Your task to perform on an android device: Go to internet settings Image 0: 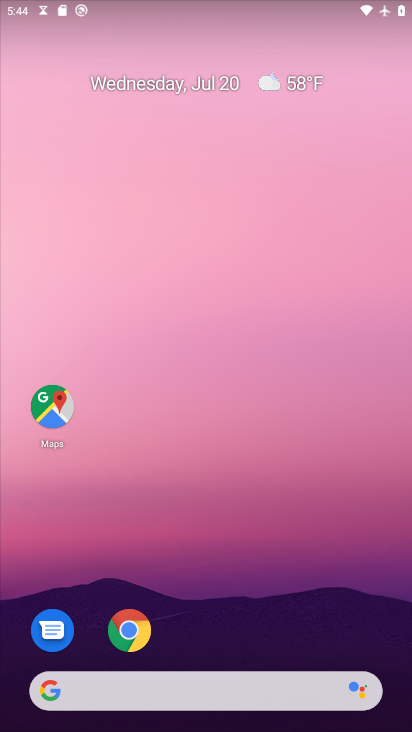
Step 0: press home button
Your task to perform on an android device: Go to internet settings Image 1: 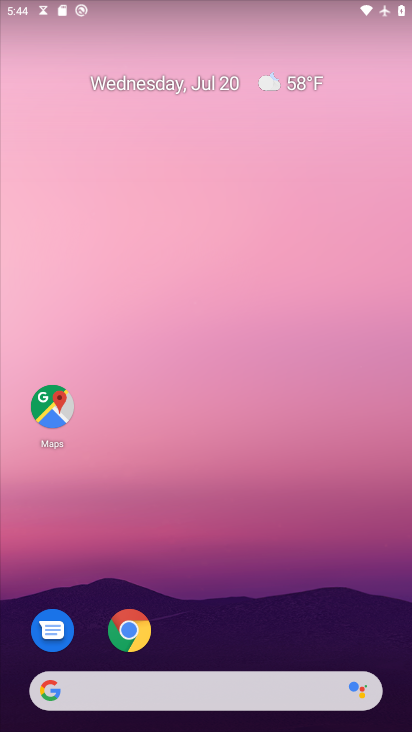
Step 1: click (348, 440)
Your task to perform on an android device: Go to internet settings Image 2: 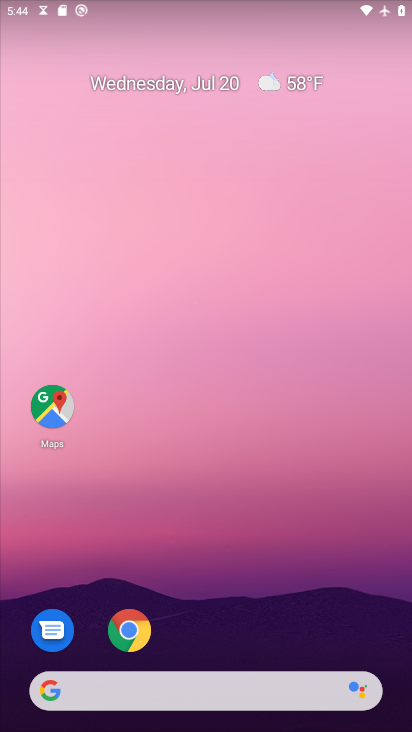
Step 2: drag from (230, 17) to (362, 728)
Your task to perform on an android device: Go to internet settings Image 3: 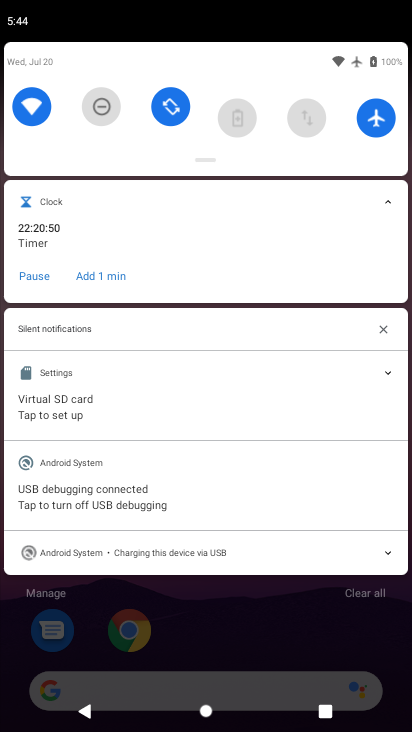
Step 3: drag from (186, 645) to (213, 4)
Your task to perform on an android device: Go to internet settings Image 4: 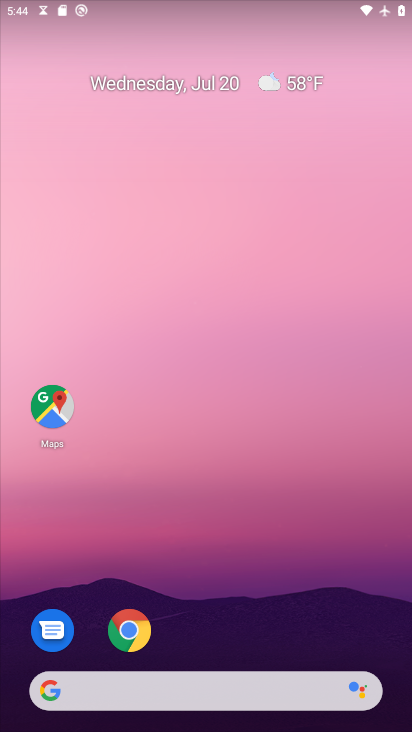
Step 4: drag from (234, 657) to (149, 0)
Your task to perform on an android device: Go to internet settings Image 5: 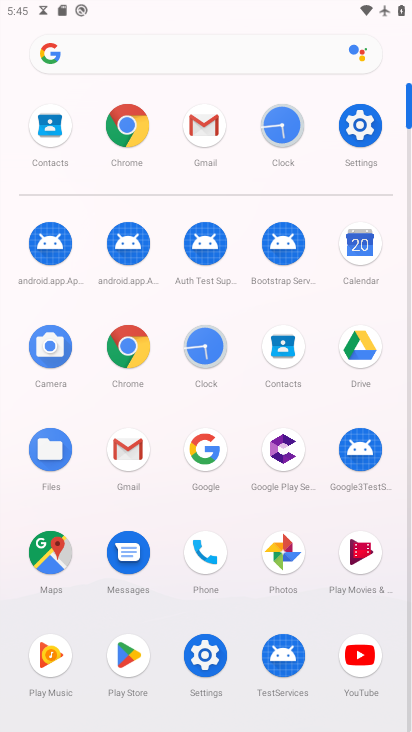
Step 5: click (363, 127)
Your task to perform on an android device: Go to internet settings Image 6: 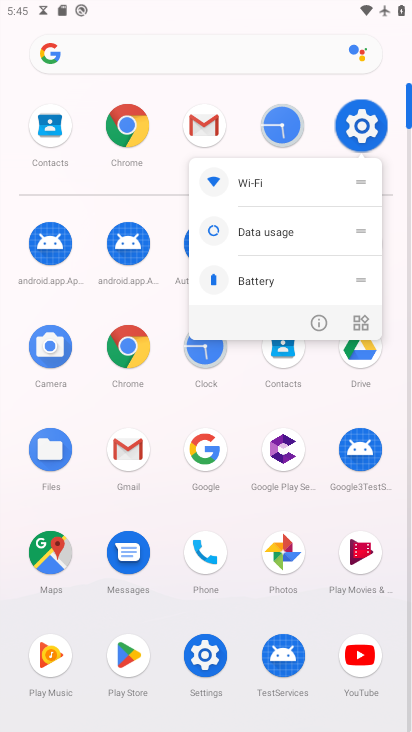
Step 6: click (360, 129)
Your task to perform on an android device: Go to internet settings Image 7: 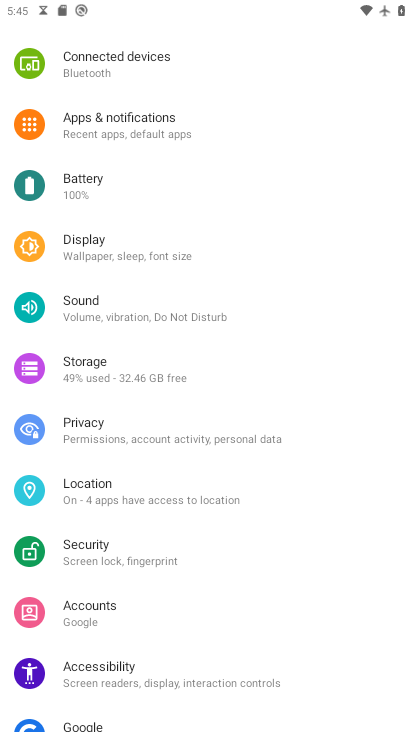
Step 7: drag from (269, 101) to (405, 614)
Your task to perform on an android device: Go to internet settings Image 8: 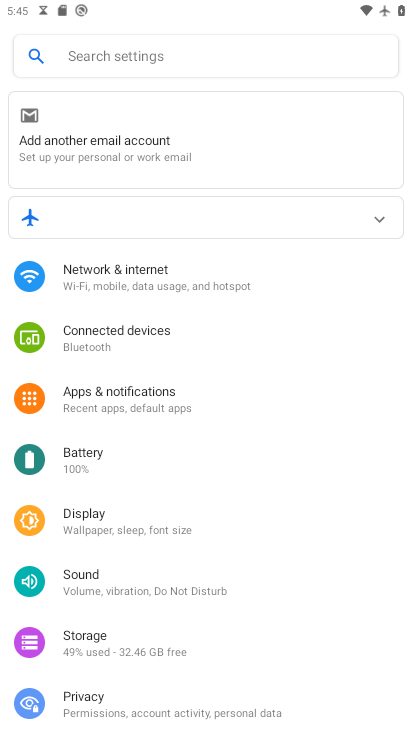
Step 8: click (110, 268)
Your task to perform on an android device: Go to internet settings Image 9: 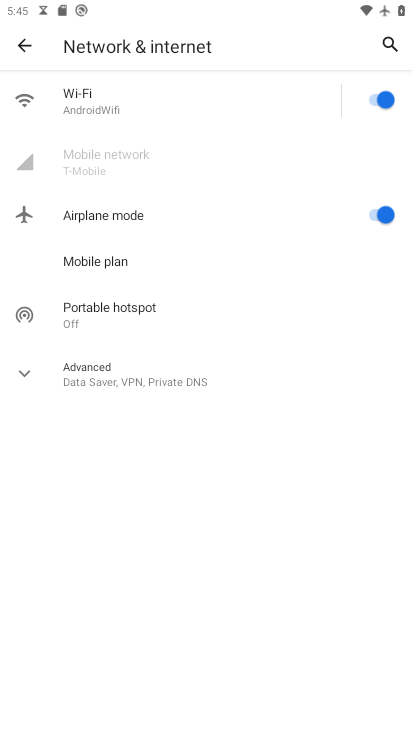
Step 9: task complete